Your task to perform on an android device: Open network settings Image 0: 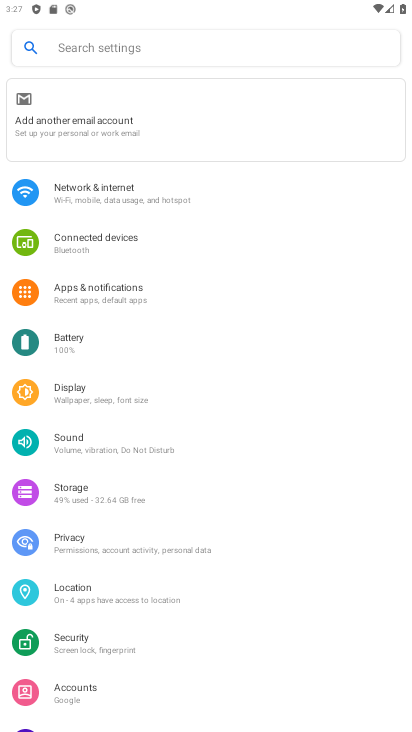
Step 0: click (127, 192)
Your task to perform on an android device: Open network settings Image 1: 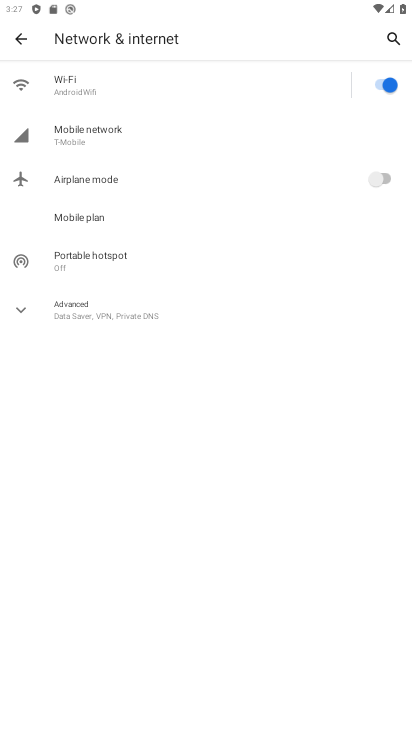
Step 1: task complete